Your task to perform on an android device: toggle sleep mode Image 0: 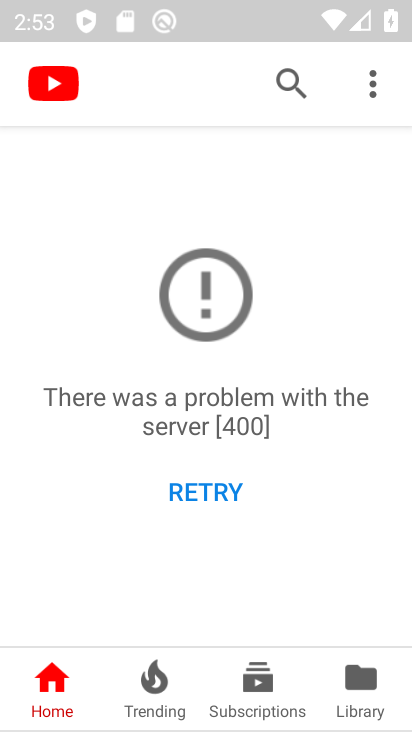
Step 0: press home button
Your task to perform on an android device: toggle sleep mode Image 1: 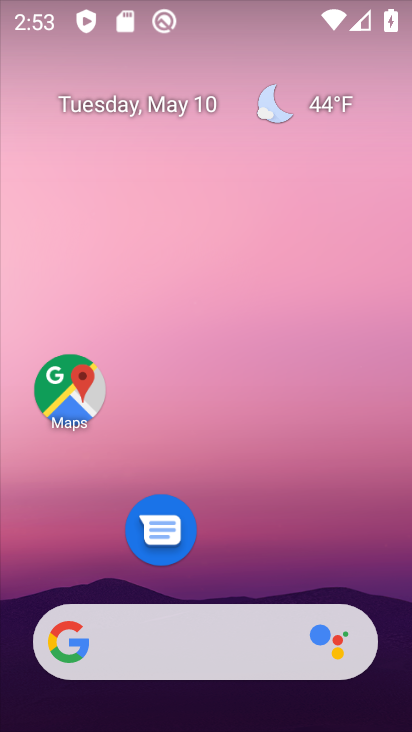
Step 1: drag from (251, 548) to (245, 77)
Your task to perform on an android device: toggle sleep mode Image 2: 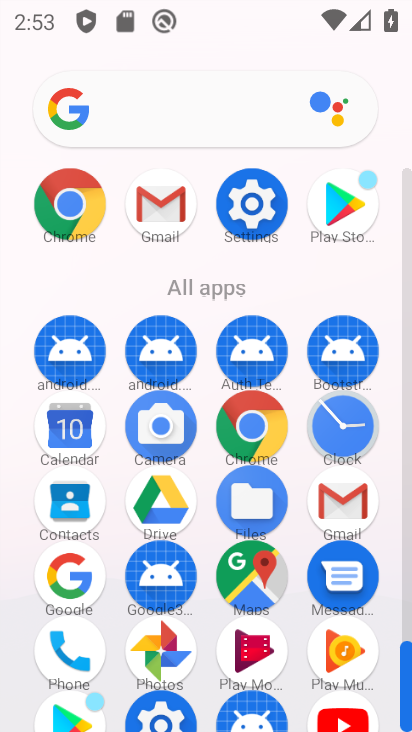
Step 2: click (260, 200)
Your task to perform on an android device: toggle sleep mode Image 3: 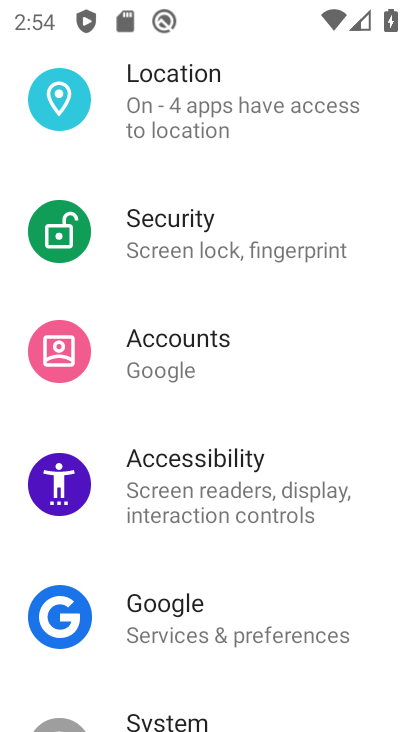
Step 3: drag from (215, 167) to (267, 635)
Your task to perform on an android device: toggle sleep mode Image 4: 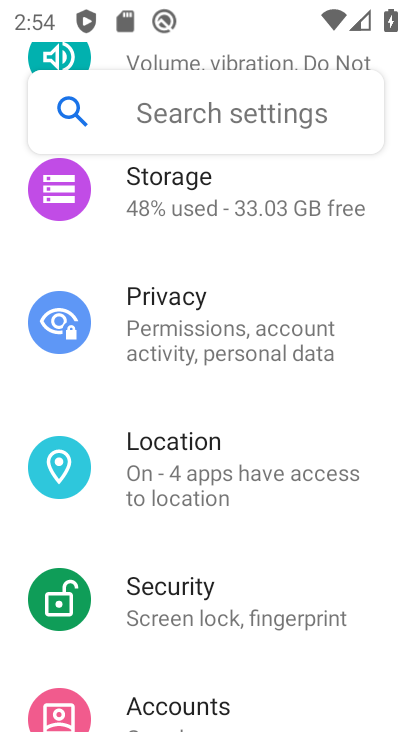
Step 4: drag from (231, 240) to (264, 669)
Your task to perform on an android device: toggle sleep mode Image 5: 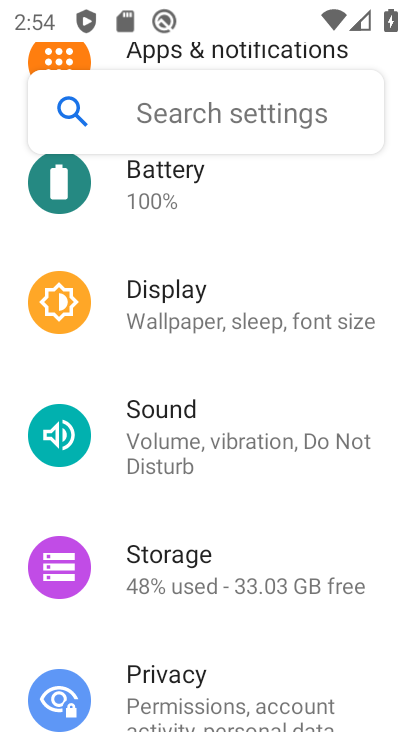
Step 5: click (189, 307)
Your task to perform on an android device: toggle sleep mode Image 6: 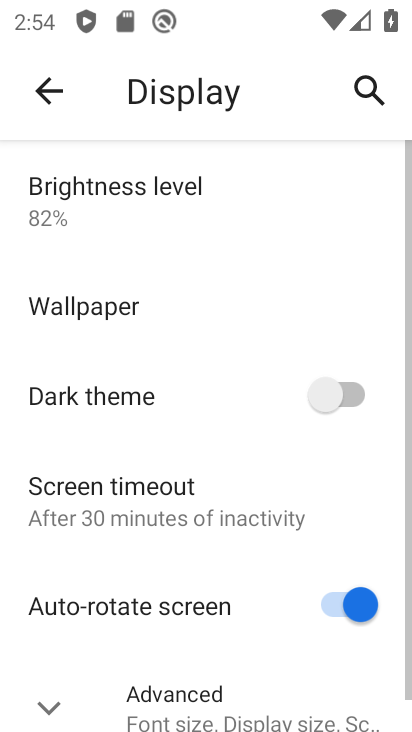
Step 6: click (172, 507)
Your task to perform on an android device: toggle sleep mode Image 7: 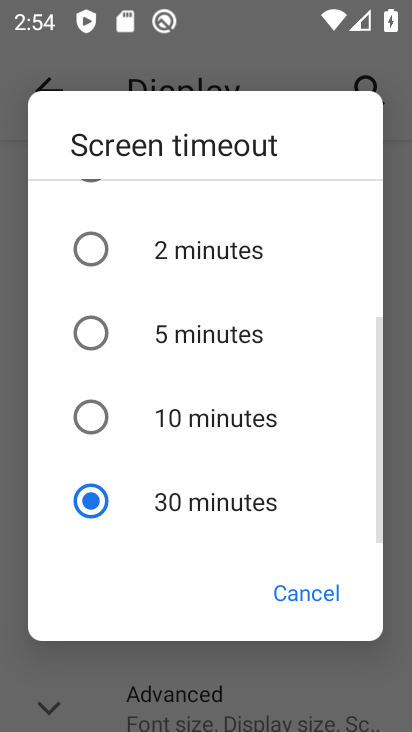
Step 7: click (88, 415)
Your task to perform on an android device: toggle sleep mode Image 8: 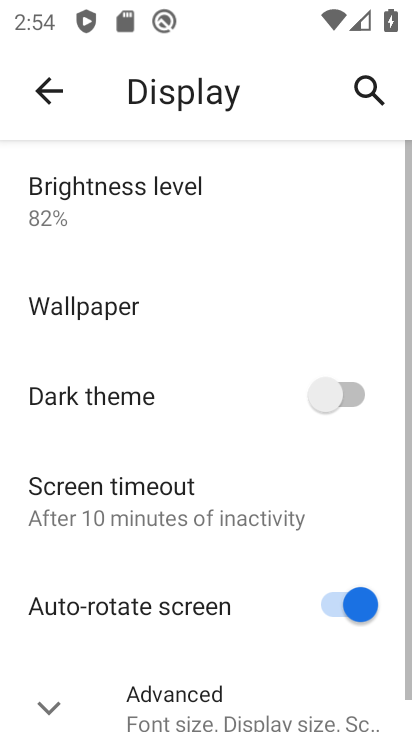
Step 8: task complete